Your task to perform on an android device: What's the weather? Image 0: 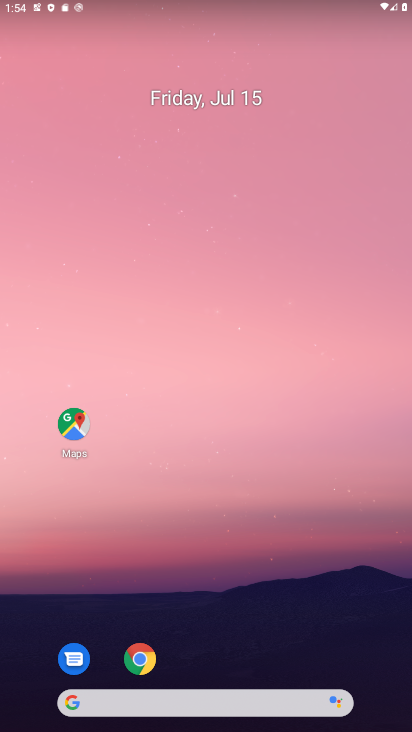
Step 0: drag from (197, 659) to (196, 197)
Your task to perform on an android device: What's the weather? Image 1: 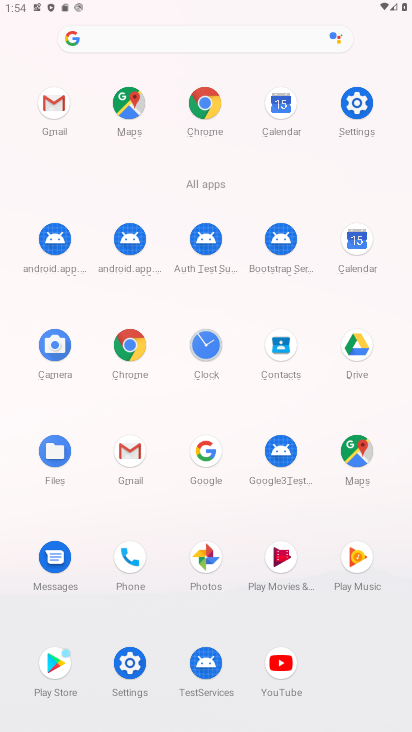
Step 1: click (200, 100)
Your task to perform on an android device: What's the weather? Image 2: 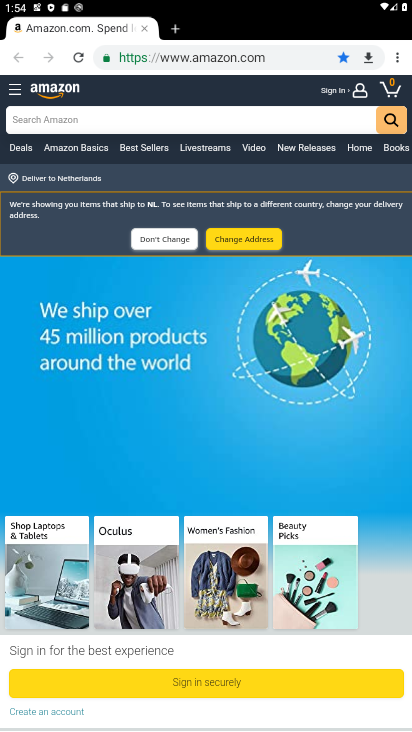
Step 2: click (181, 25)
Your task to perform on an android device: What's the weather? Image 3: 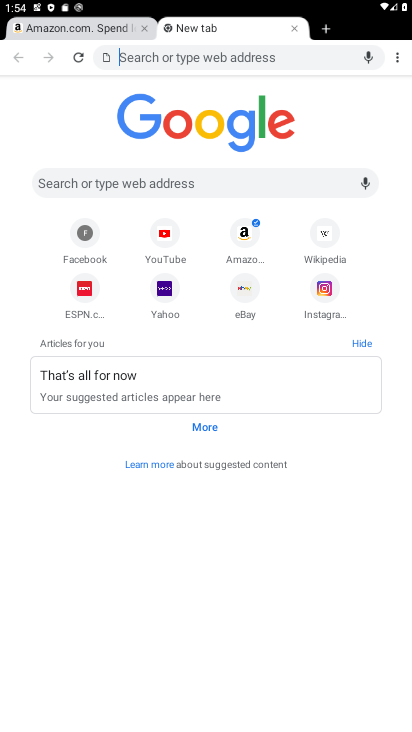
Step 3: click (193, 188)
Your task to perform on an android device: What's the weather? Image 4: 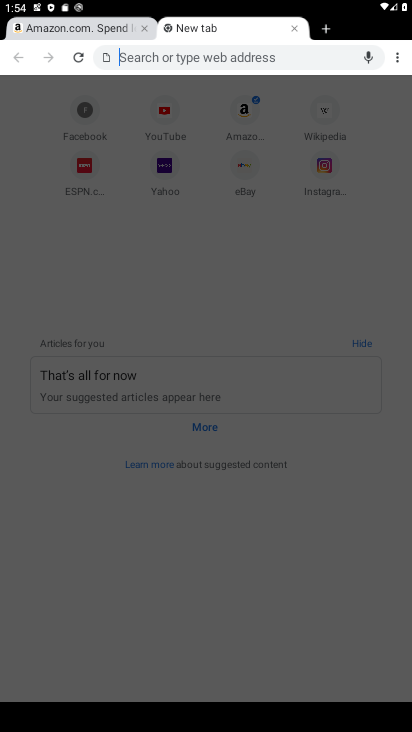
Step 4: type "What's the weather "
Your task to perform on an android device: What's the weather? Image 5: 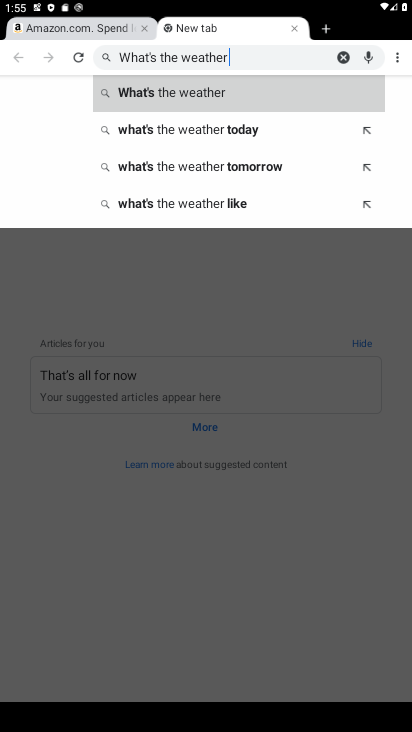
Step 5: click (187, 80)
Your task to perform on an android device: What's the weather? Image 6: 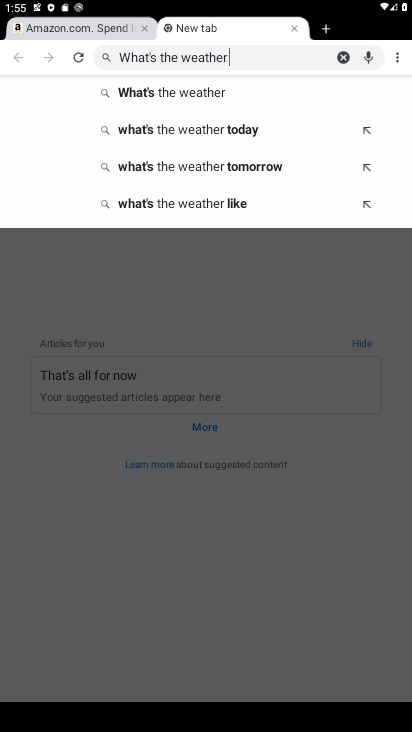
Step 6: click (167, 89)
Your task to perform on an android device: What's the weather? Image 7: 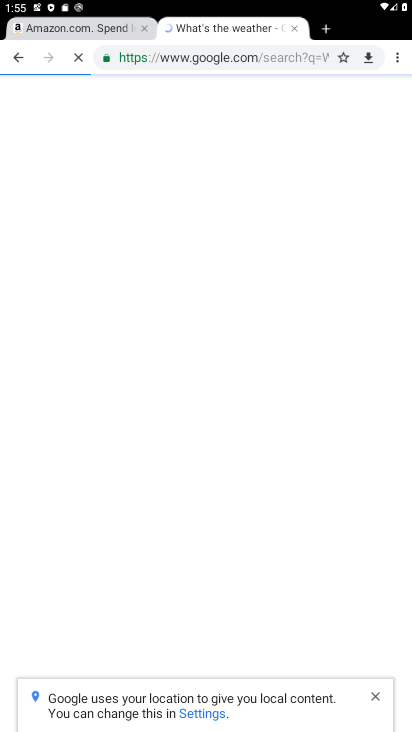
Step 7: task complete